Your task to perform on an android device: Go to Maps Image 0: 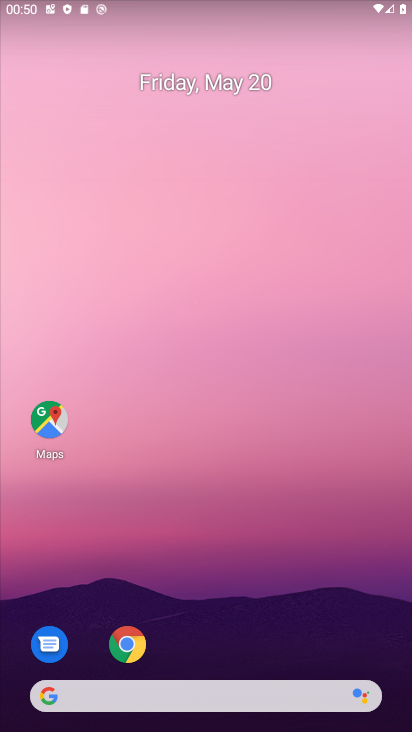
Step 0: click (48, 421)
Your task to perform on an android device: Go to Maps Image 1: 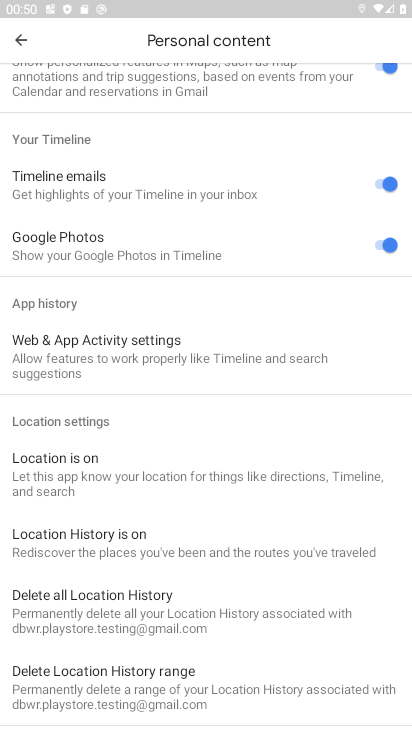
Step 1: click (17, 34)
Your task to perform on an android device: Go to Maps Image 2: 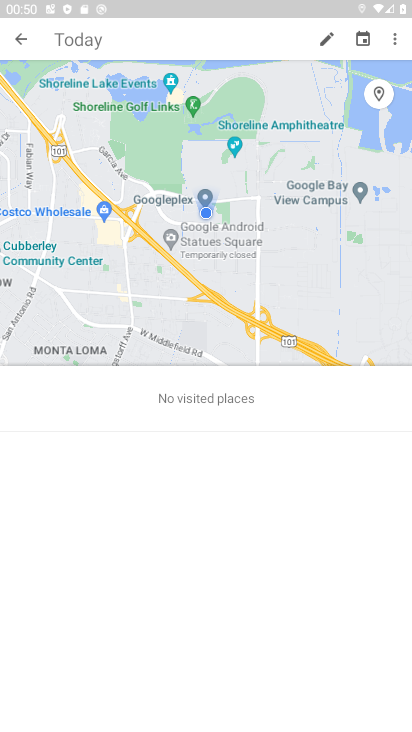
Step 2: click (20, 41)
Your task to perform on an android device: Go to Maps Image 3: 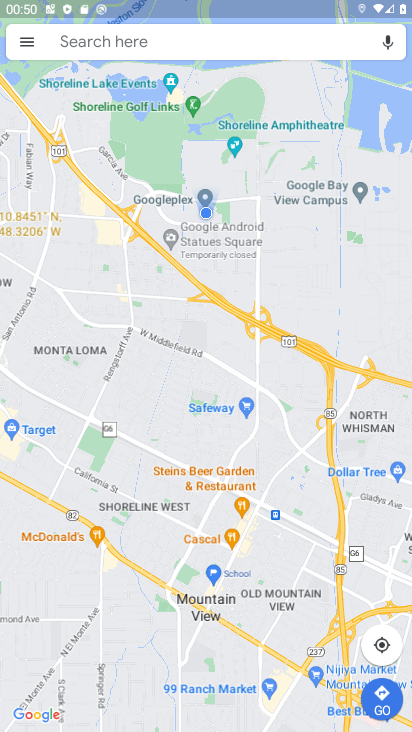
Step 3: task complete